Your task to perform on an android device: change the upload size in google photos Image 0: 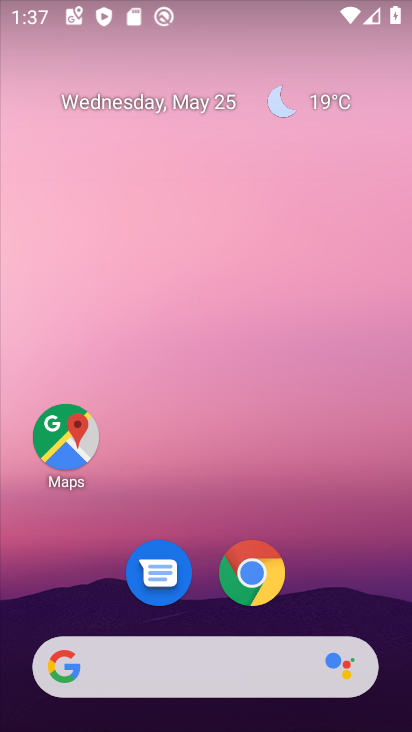
Step 0: drag from (392, 609) to (292, 16)
Your task to perform on an android device: change the upload size in google photos Image 1: 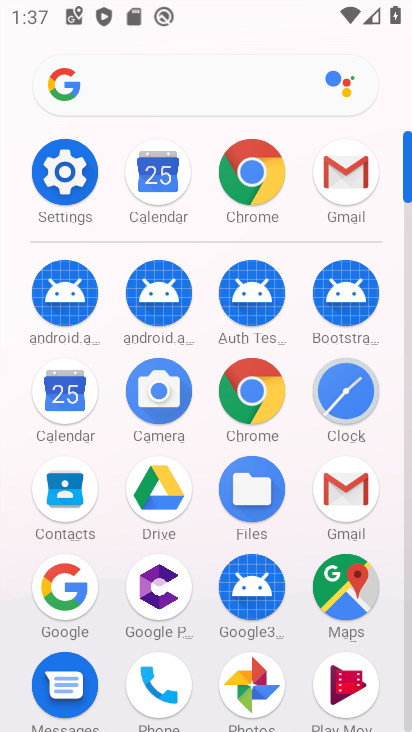
Step 1: click (408, 674)
Your task to perform on an android device: change the upload size in google photos Image 2: 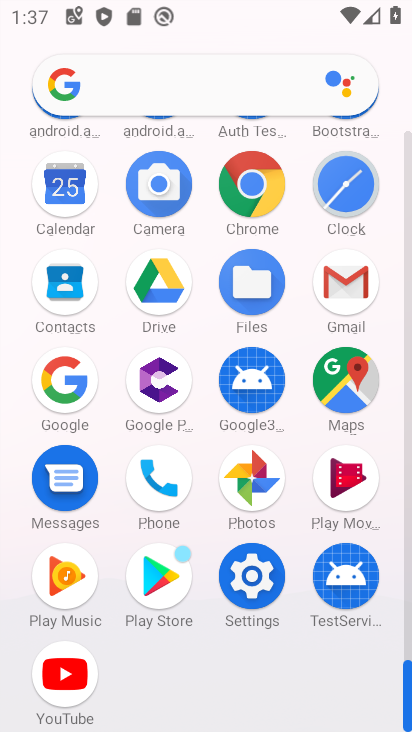
Step 2: click (254, 479)
Your task to perform on an android device: change the upload size in google photos Image 3: 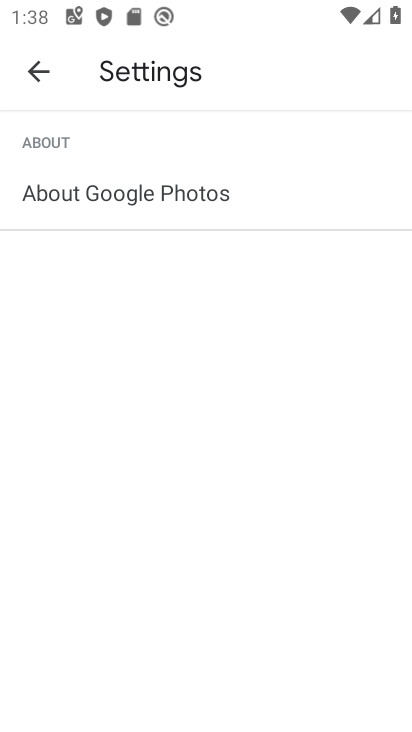
Step 3: press home button
Your task to perform on an android device: change the upload size in google photos Image 4: 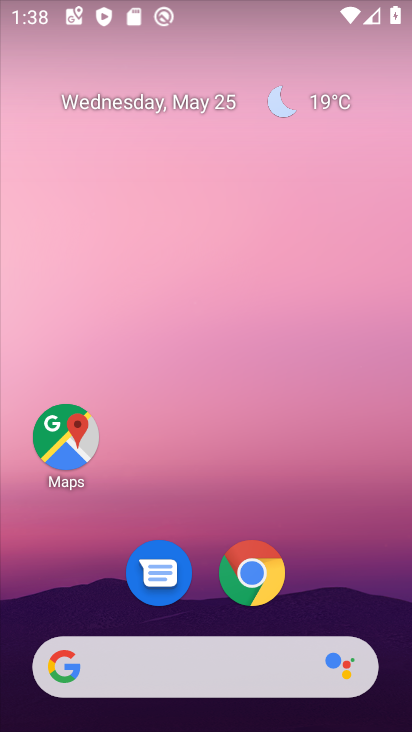
Step 4: drag from (384, 627) to (313, 107)
Your task to perform on an android device: change the upload size in google photos Image 5: 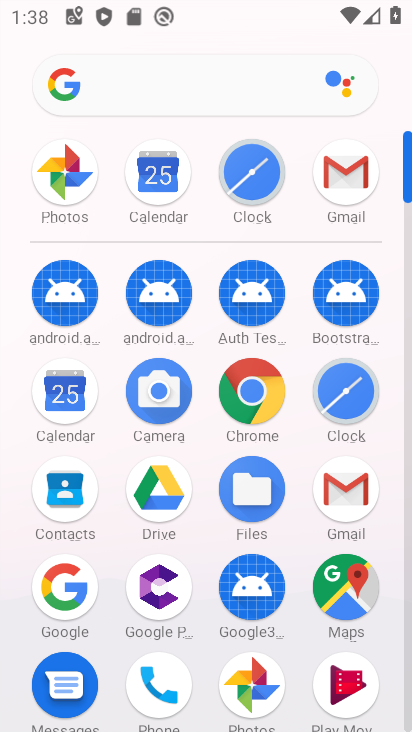
Step 5: click (406, 696)
Your task to perform on an android device: change the upload size in google photos Image 6: 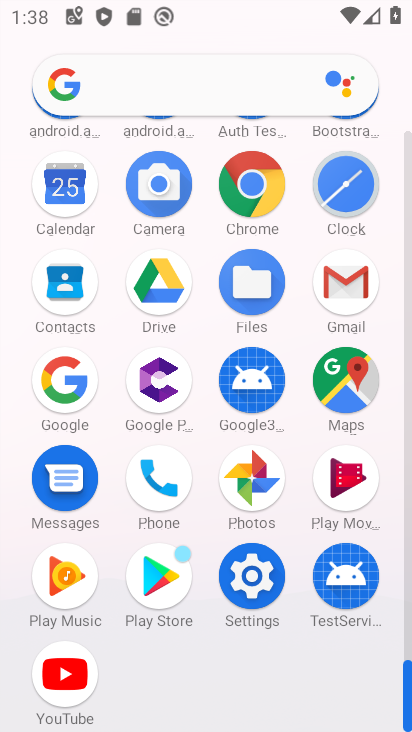
Step 6: click (252, 477)
Your task to perform on an android device: change the upload size in google photos Image 7: 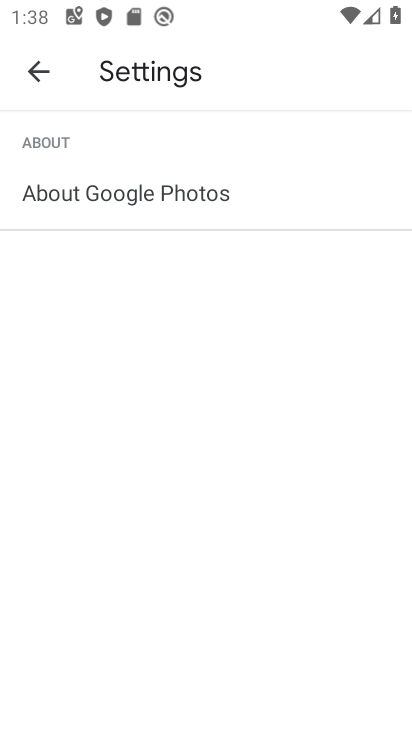
Step 7: press back button
Your task to perform on an android device: change the upload size in google photos Image 8: 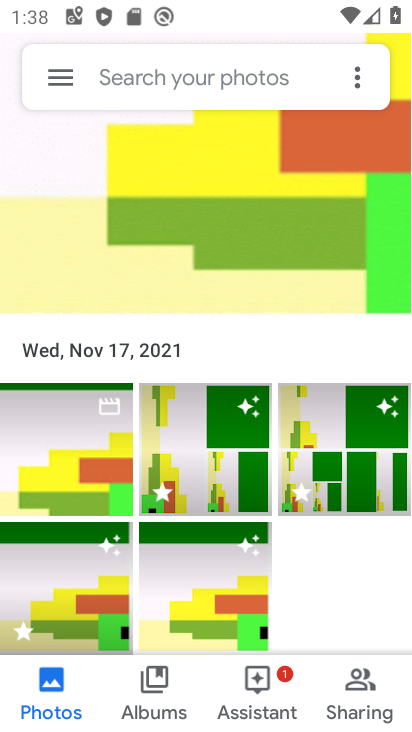
Step 8: click (54, 79)
Your task to perform on an android device: change the upload size in google photos Image 9: 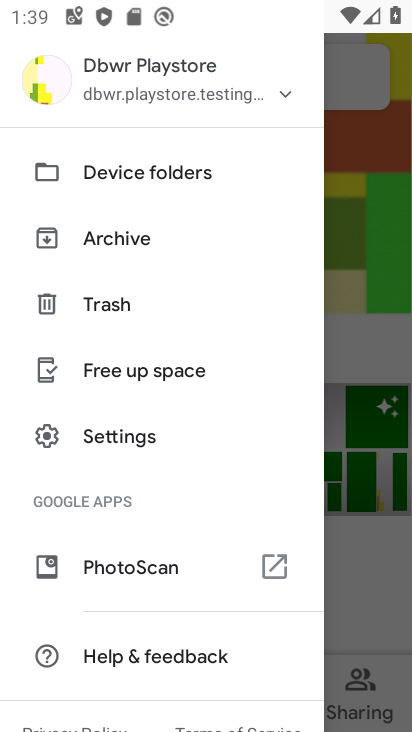
Step 9: click (118, 429)
Your task to perform on an android device: change the upload size in google photos Image 10: 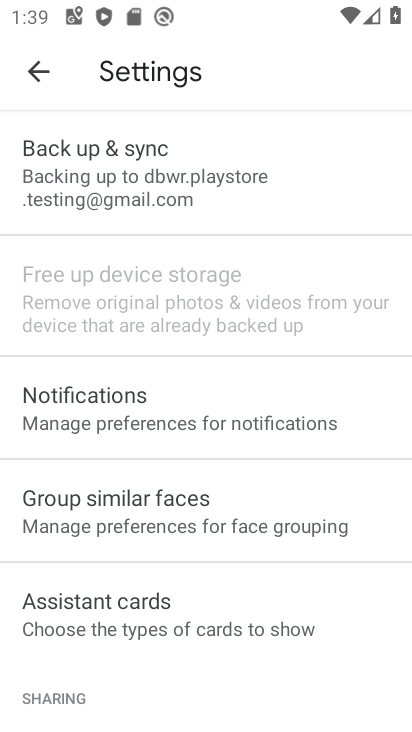
Step 10: click (125, 160)
Your task to perform on an android device: change the upload size in google photos Image 11: 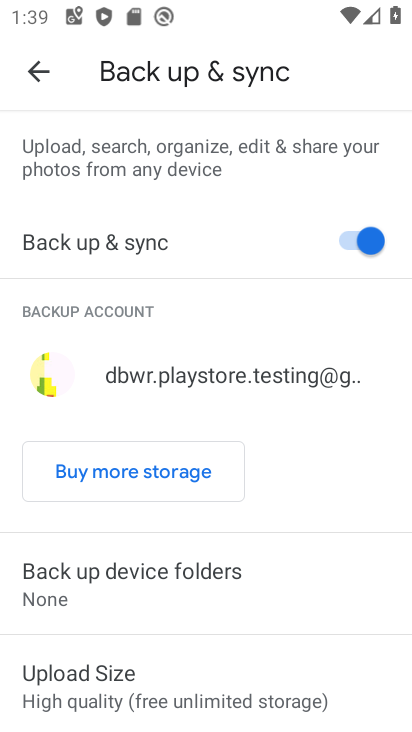
Step 11: drag from (251, 508) to (267, 74)
Your task to perform on an android device: change the upload size in google photos Image 12: 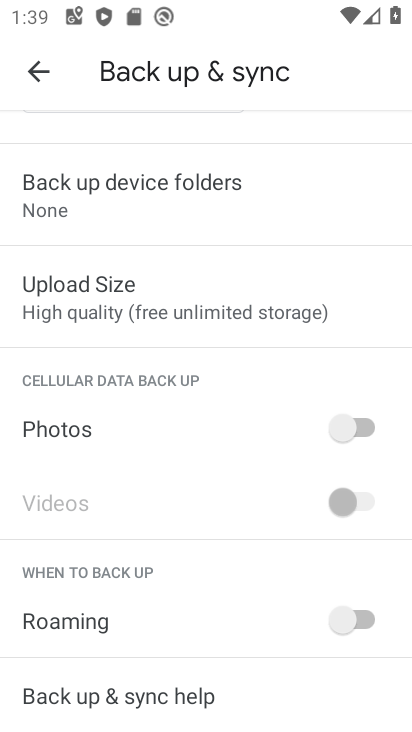
Step 12: click (104, 273)
Your task to perform on an android device: change the upload size in google photos Image 13: 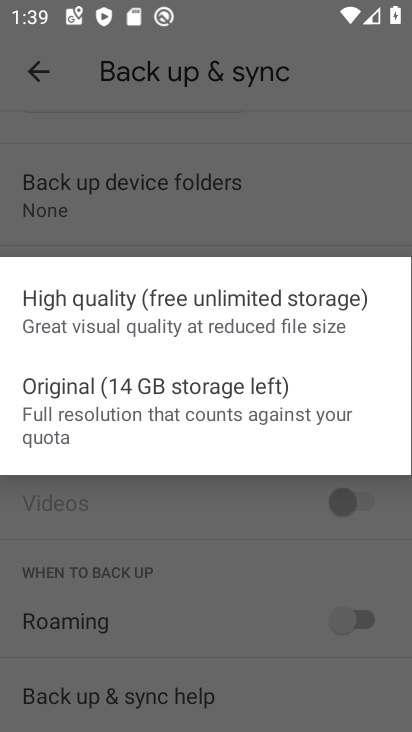
Step 13: click (103, 401)
Your task to perform on an android device: change the upload size in google photos Image 14: 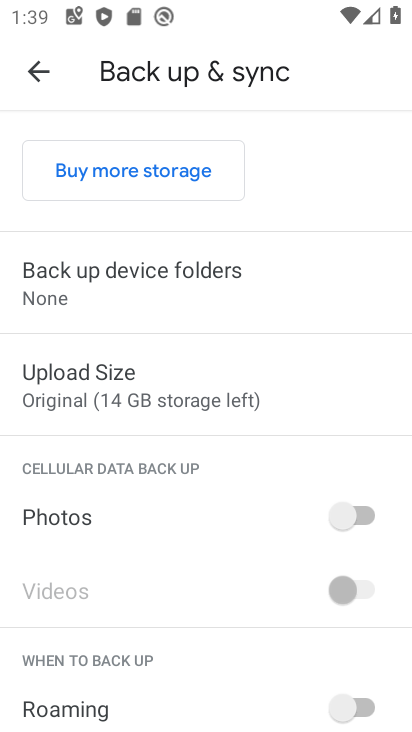
Step 14: task complete